Your task to perform on an android device: turn off location Image 0: 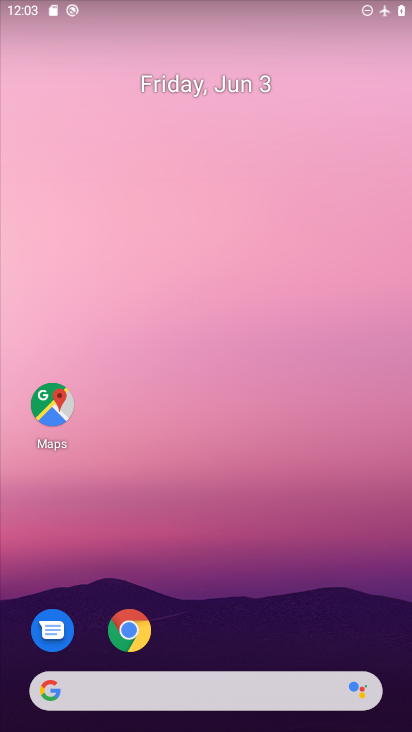
Step 0: drag from (274, 634) to (178, 179)
Your task to perform on an android device: turn off location Image 1: 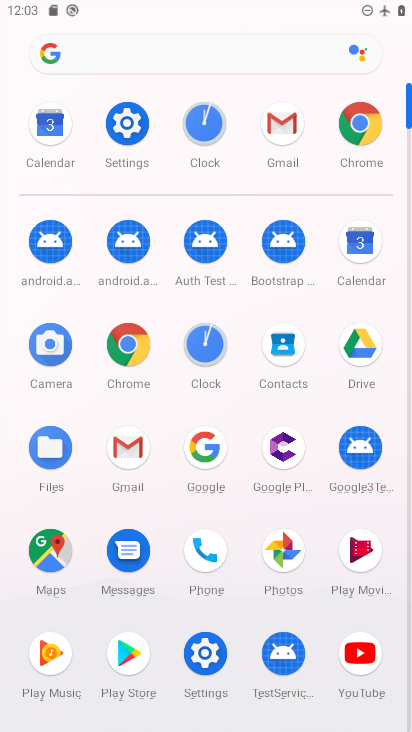
Step 1: click (127, 127)
Your task to perform on an android device: turn off location Image 2: 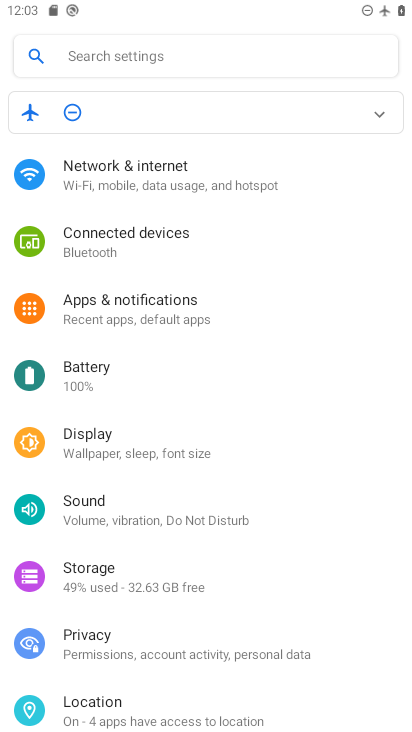
Step 2: click (163, 708)
Your task to perform on an android device: turn off location Image 3: 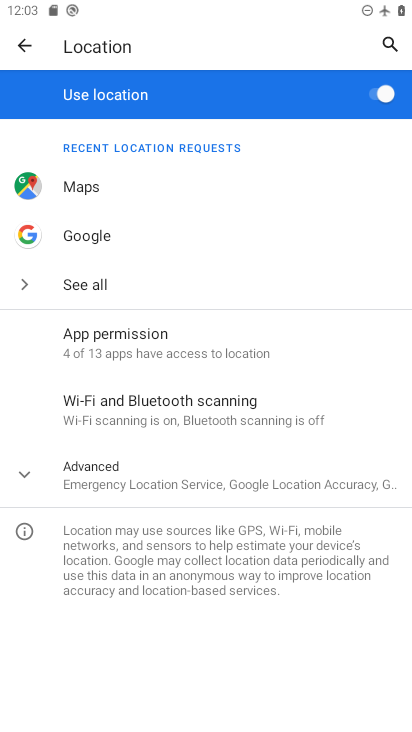
Step 3: click (384, 95)
Your task to perform on an android device: turn off location Image 4: 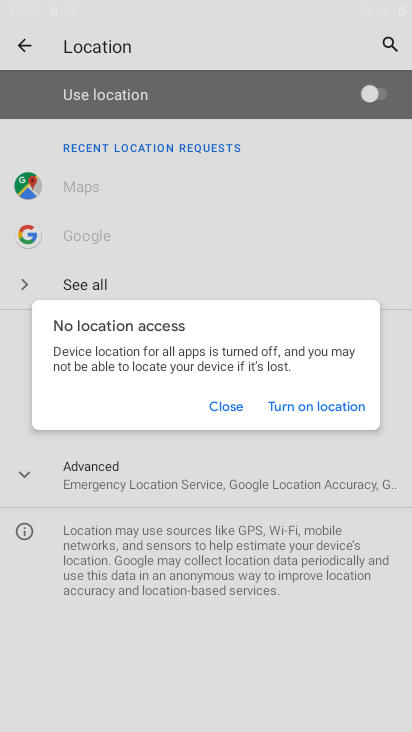
Step 4: task complete